Your task to perform on an android device: check android version Image 0: 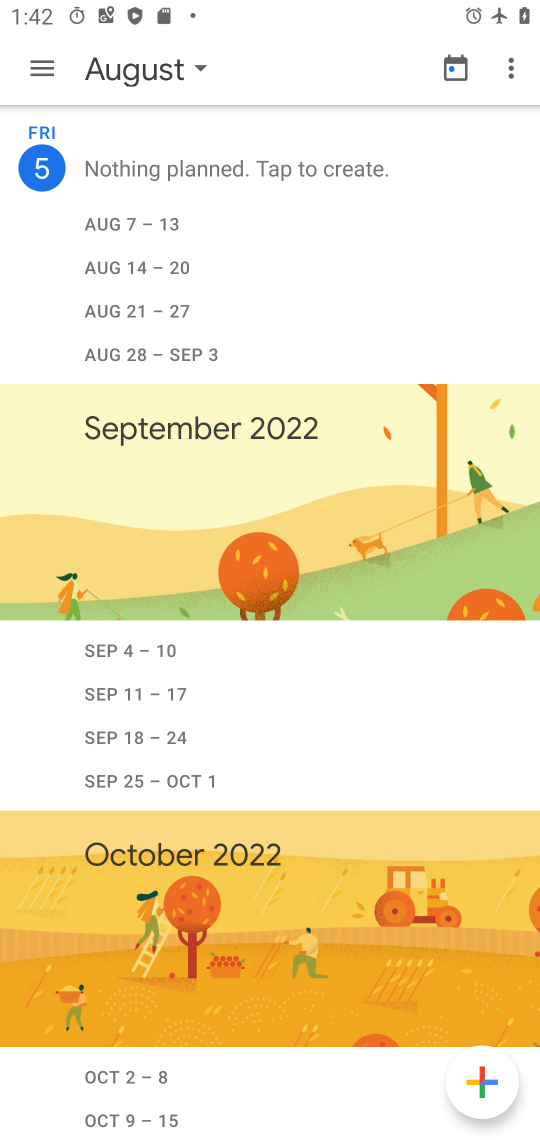
Step 0: press home button
Your task to perform on an android device: check android version Image 1: 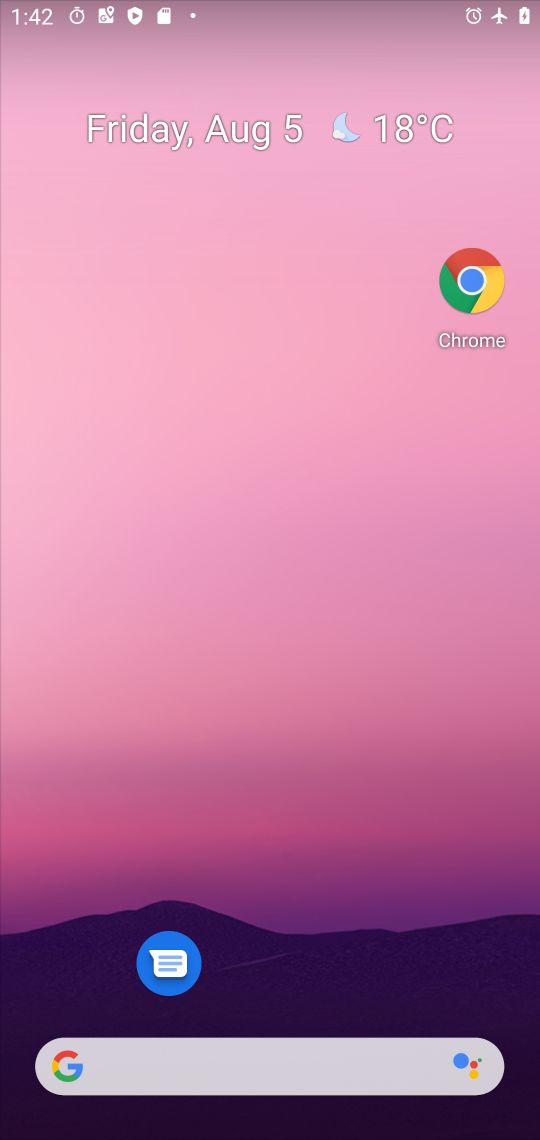
Step 1: drag from (298, 927) to (340, 0)
Your task to perform on an android device: check android version Image 2: 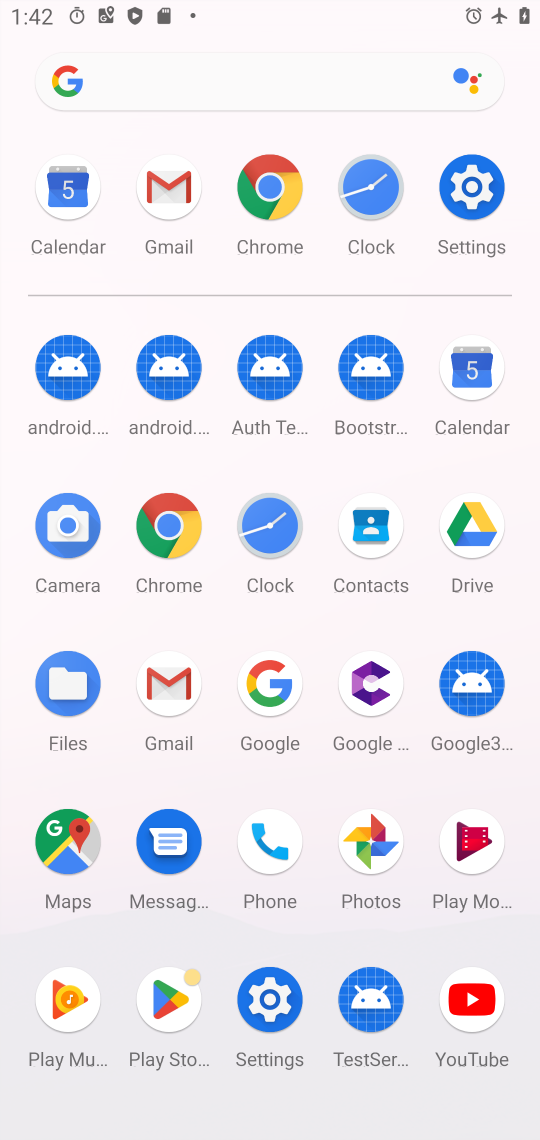
Step 2: click (468, 206)
Your task to perform on an android device: check android version Image 3: 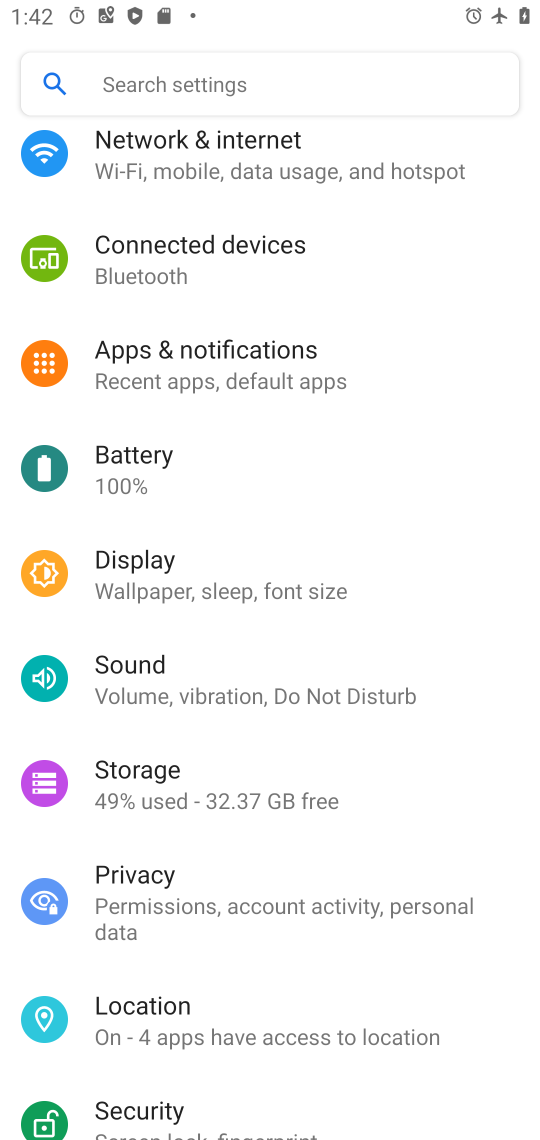
Step 3: drag from (207, 709) to (300, 85)
Your task to perform on an android device: check android version Image 4: 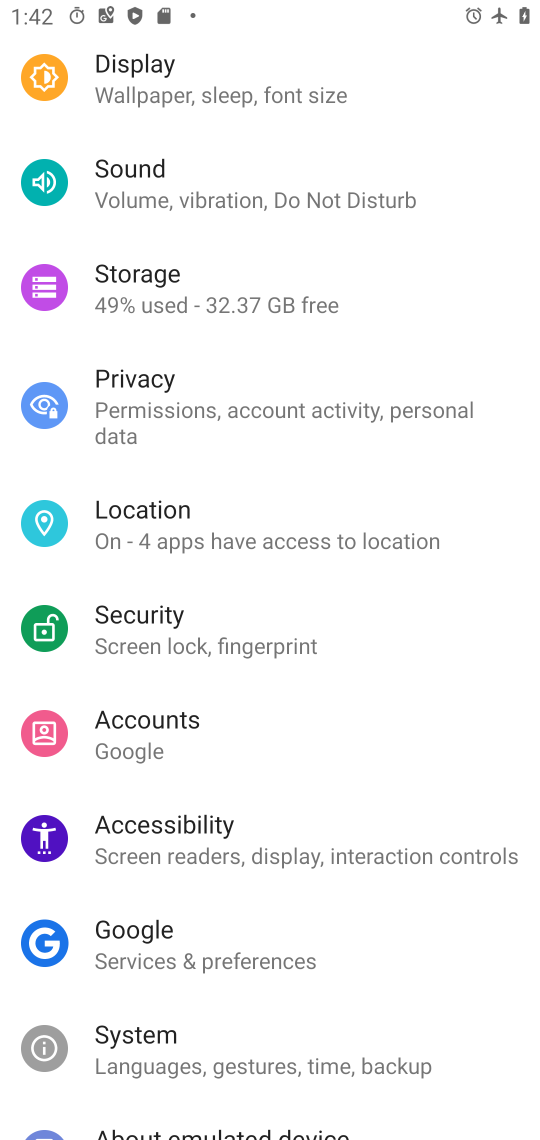
Step 4: drag from (259, 1031) to (344, 289)
Your task to perform on an android device: check android version Image 5: 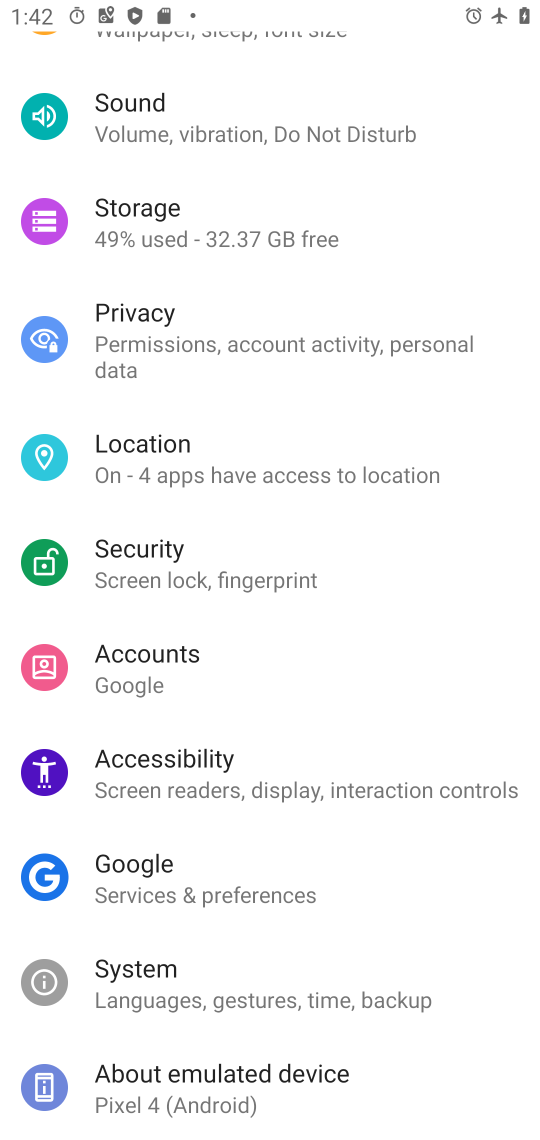
Step 5: click (173, 1084)
Your task to perform on an android device: check android version Image 6: 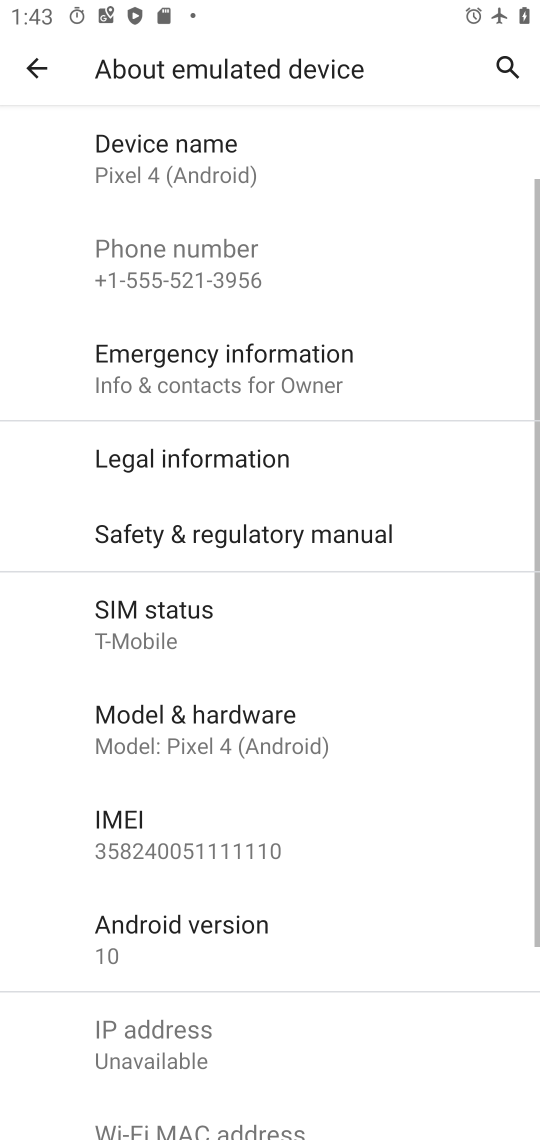
Step 6: click (171, 948)
Your task to perform on an android device: check android version Image 7: 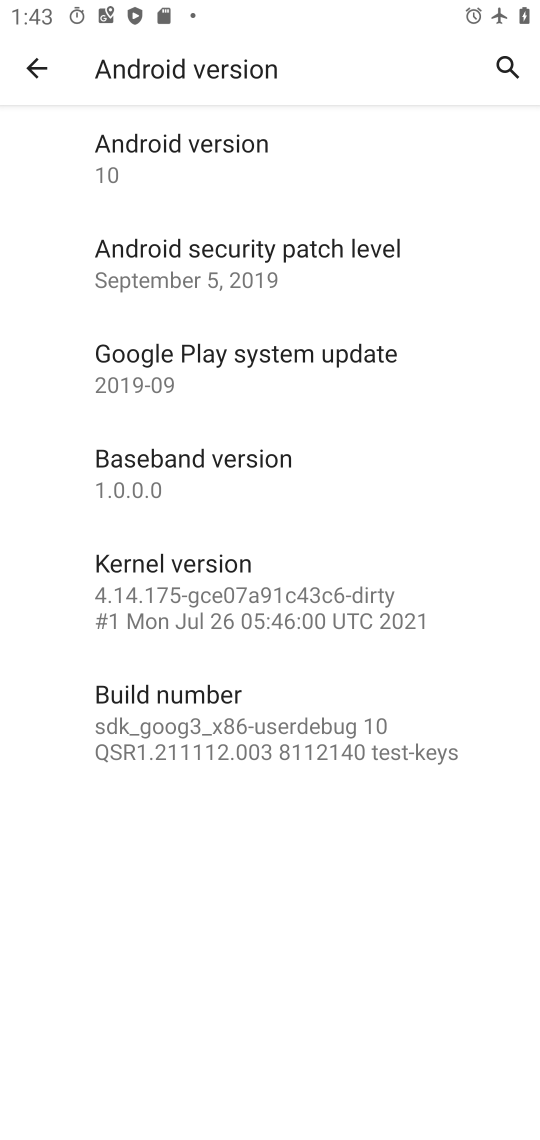
Step 7: task complete